Your task to perform on an android device: Open settings on Google Maps Image 0: 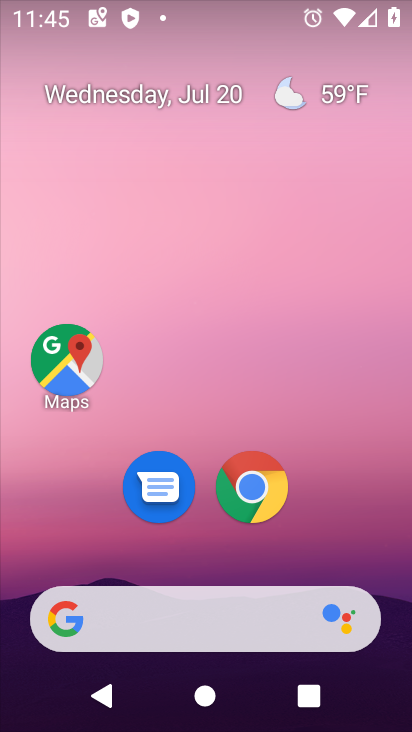
Step 0: drag from (349, 526) to (360, 139)
Your task to perform on an android device: Open settings on Google Maps Image 1: 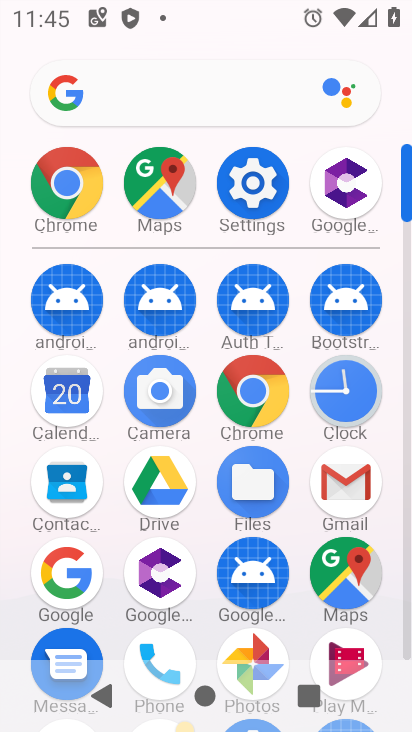
Step 1: click (334, 588)
Your task to perform on an android device: Open settings on Google Maps Image 2: 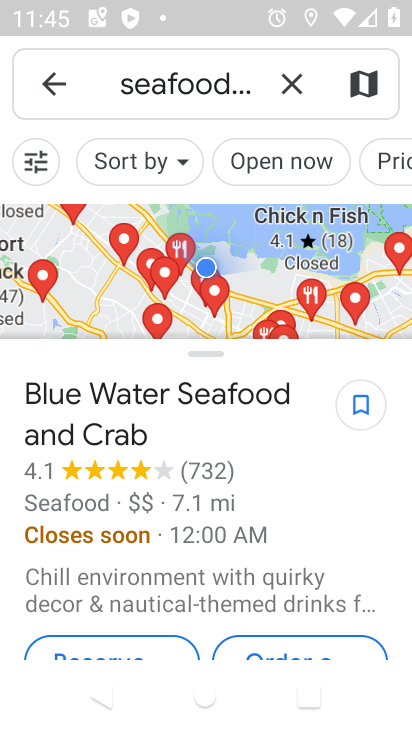
Step 2: press back button
Your task to perform on an android device: Open settings on Google Maps Image 3: 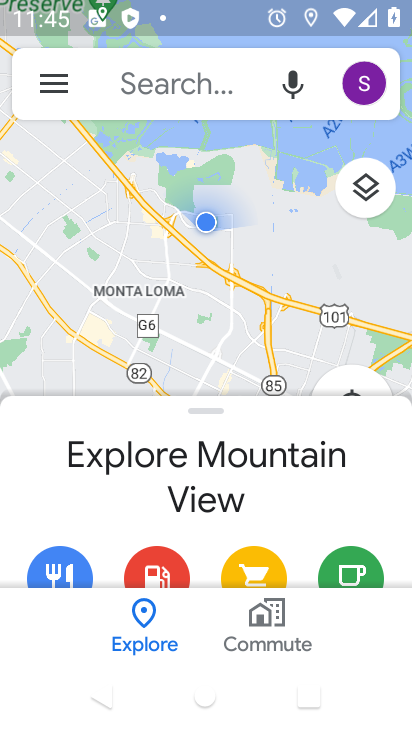
Step 3: click (54, 85)
Your task to perform on an android device: Open settings on Google Maps Image 4: 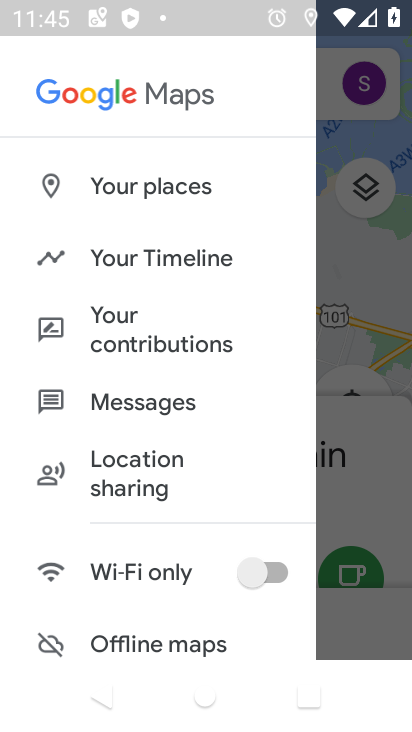
Step 4: drag from (235, 434) to (252, 355)
Your task to perform on an android device: Open settings on Google Maps Image 5: 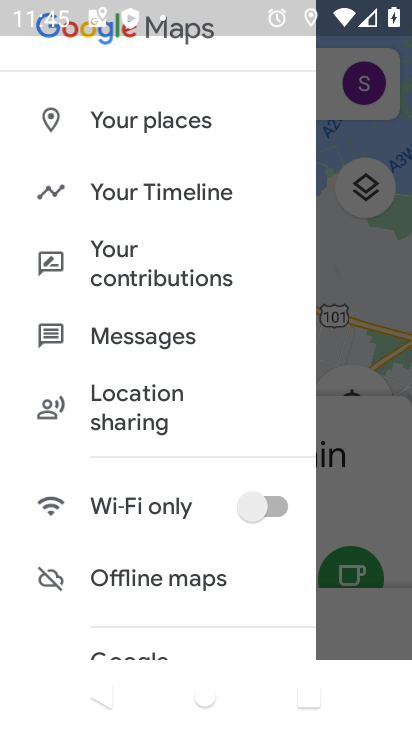
Step 5: drag from (229, 419) to (240, 323)
Your task to perform on an android device: Open settings on Google Maps Image 6: 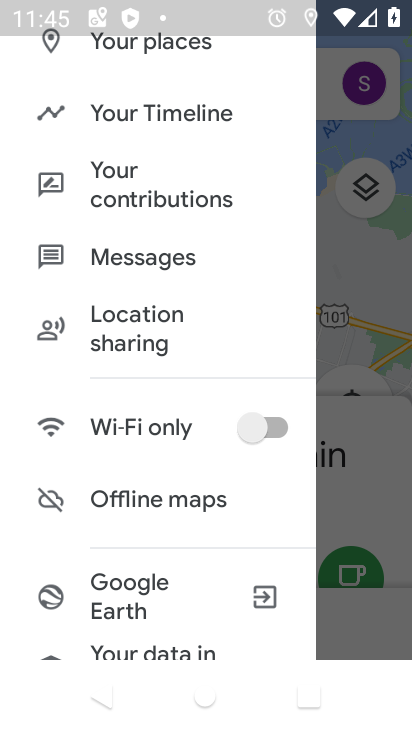
Step 6: drag from (225, 315) to (227, 225)
Your task to perform on an android device: Open settings on Google Maps Image 7: 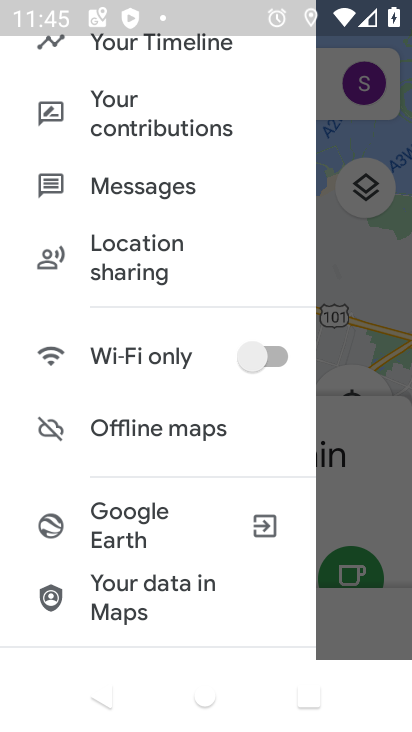
Step 7: drag from (207, 373) to (235, 242)
Your task to perform on an android device: Open settings on Google Maps Image 8: 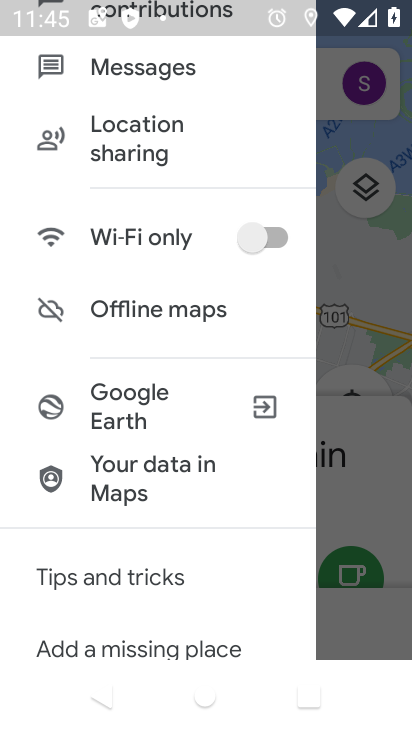
Step 8: drag from (201, 483) to (208, 299)
Your task to perform on an android device: Open settings on Google Maps Image 9: 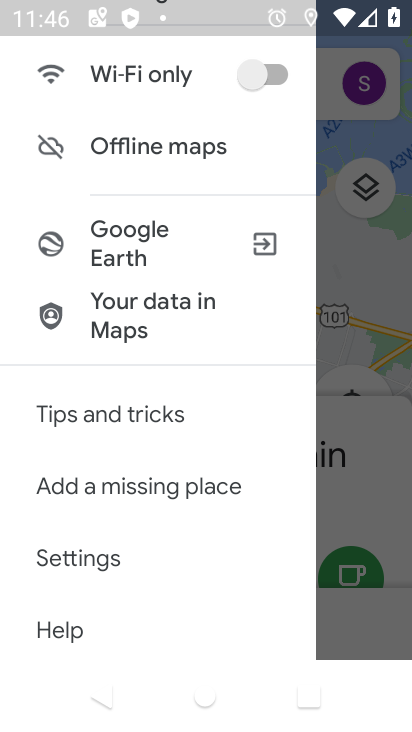
Step 9: click (167, 569)
Your task to perform on an android device: Open settings on Google Maps Image 10: 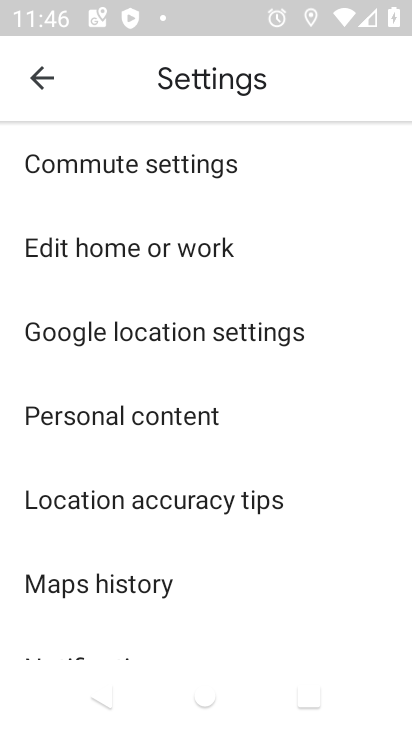
Step 10: task complete